Your task to perform on an android device: Open calendar and show me the first week of next month Image 0: 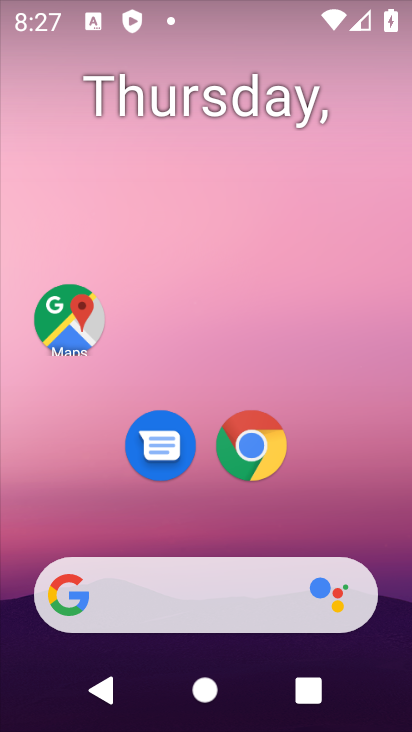
Step 0: drag from (46, 545) to (222, 167)
Your task to perform on an android device: Open calendar and show me the first week of next month Image 1: 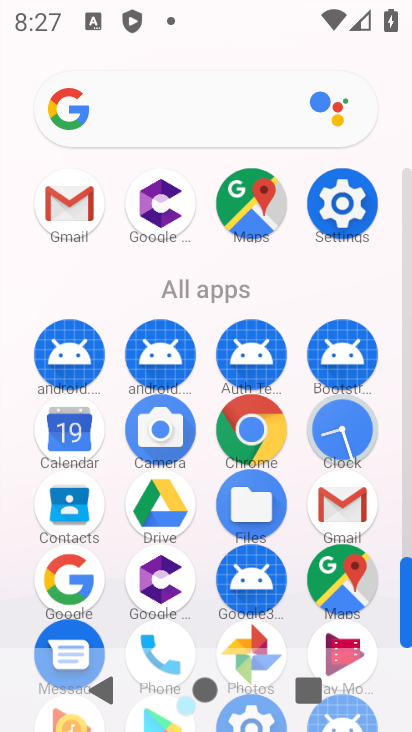
Step 1: click (63, 440)
Your task to perform on an android device: Open calendar and show me the first week of next month Image 2: 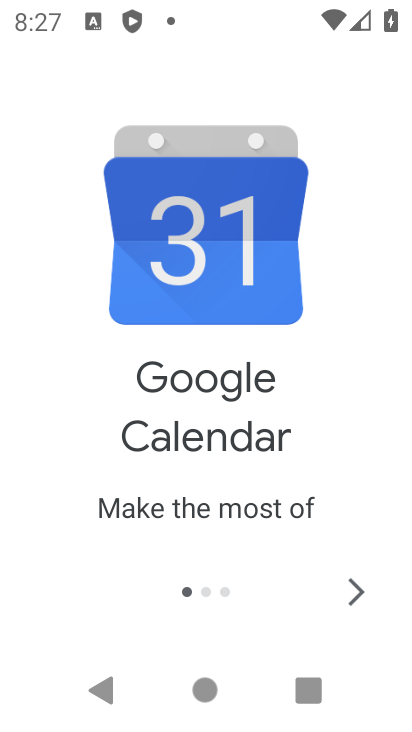
Step 2: click (351, 585)
Your task to perform on an android device: Open calendar and show me the first week of next month Image 3: 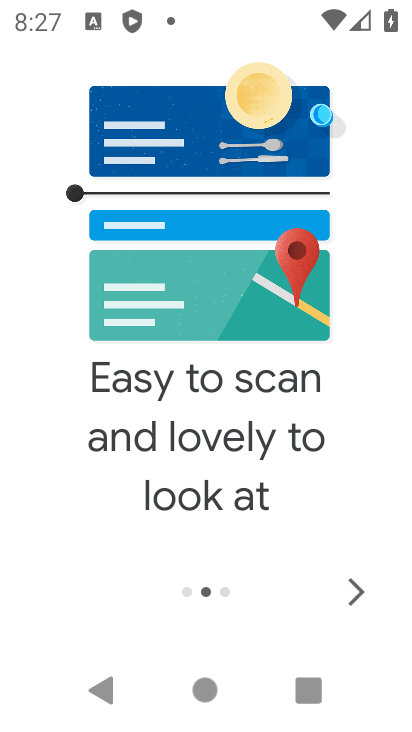
Step 3: click (351, 583)
Your task to perform on an android device: Open calendar and show me the first week of next month Image 4: 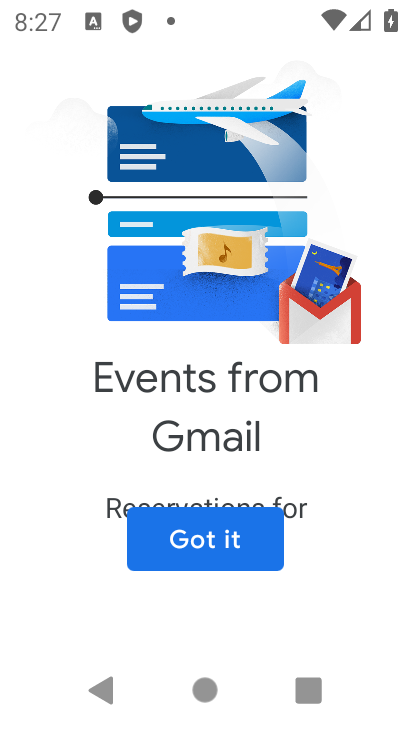
Step 4: click (189, 538)
Your task to perform on an android device: Open calendar and show me the first week of next month Image 5: 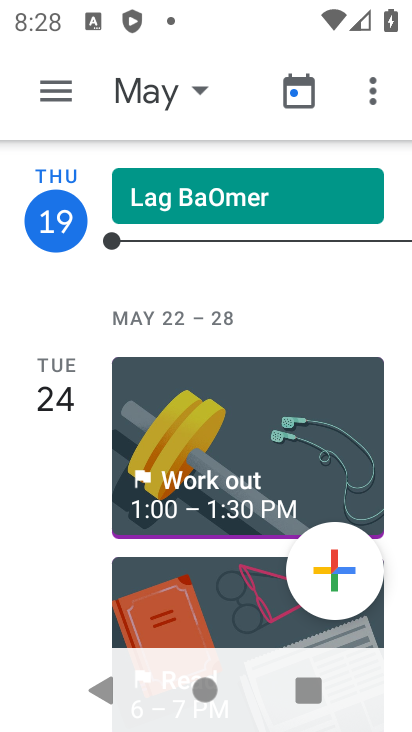
Step 5: click (173, 96)
Your task to perform on an android device: Open calendar and show me the first week of next month Image 6: 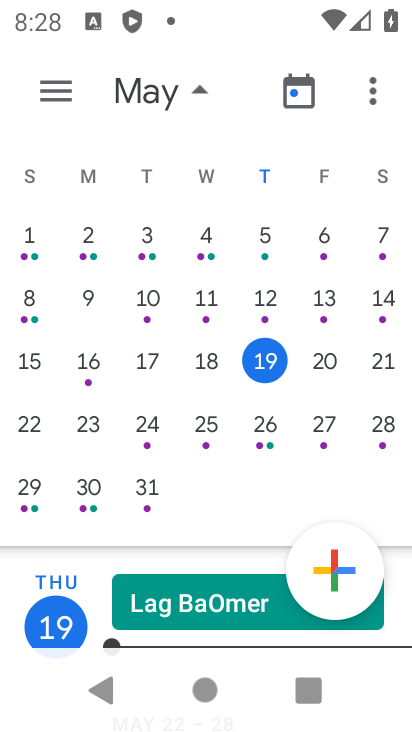
Step 6: task complete